Your task to perform on an android device: turn on improve location accuracy Image 0: 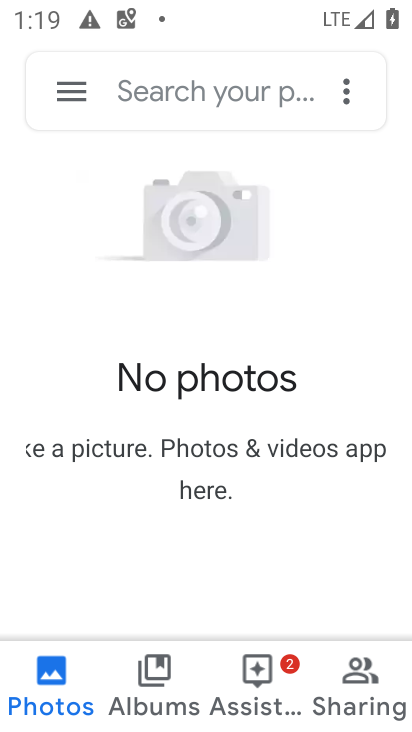
Step 0: press home button
Your task to perform on an android device: turn on improve location accuracy Image 1: 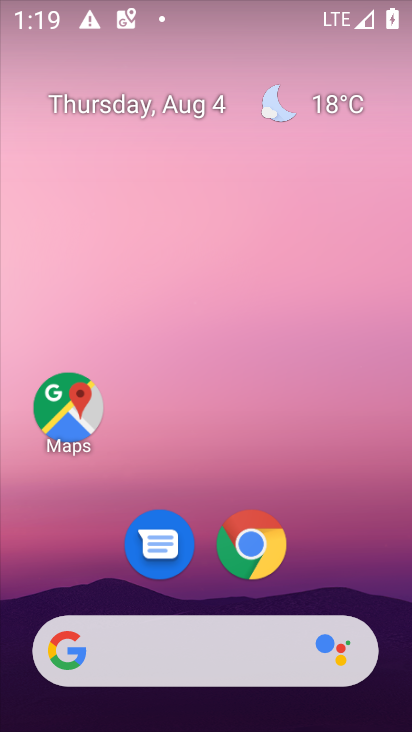
Step 1: drag from (398, 706) to (310, 136)
Your task to perform on an android device: turn on improve location accuracy Image 2: 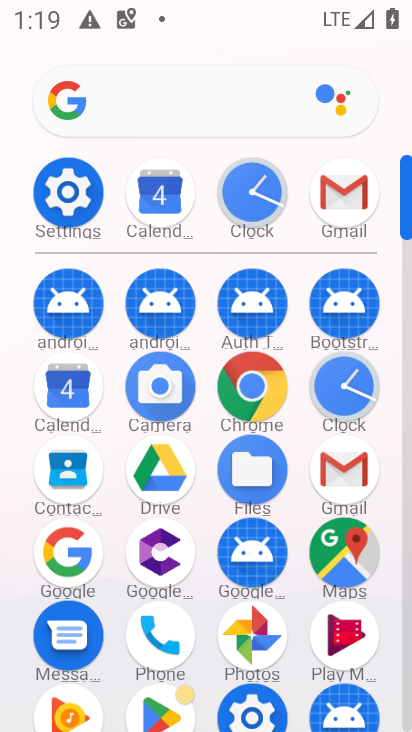
Step 2: click (57, 189)
Your task to perform on an android device: turn on improve location accuracy Image 3: 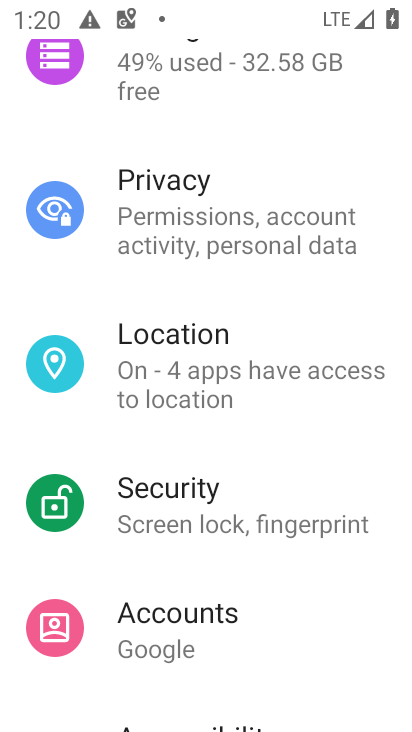
Step 3: drag from (289, 655) to (288, 279)
Your task to perform on an android device: turn on improve location accuracy Image 4: 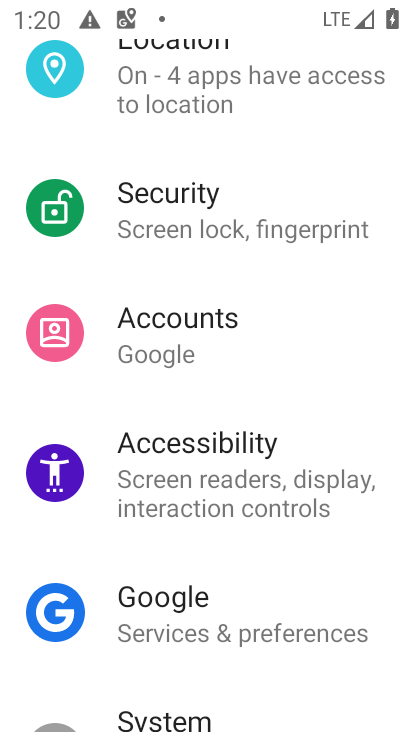
Step 4: drag from (253, 674) to (263, 417)
Your task to perform on an android device: turn on improve location accuracy Image 5: 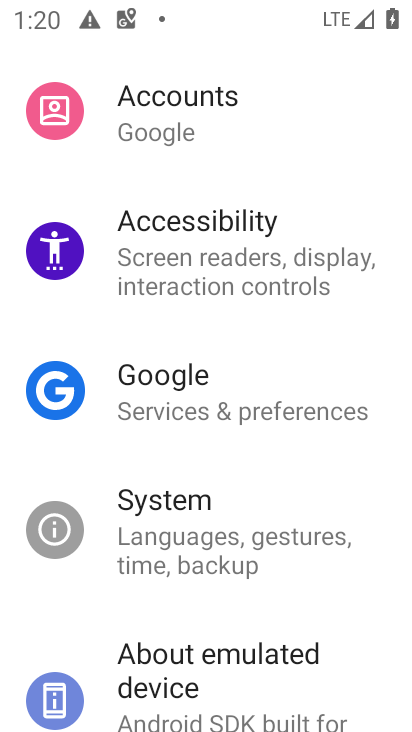
Step 5: drag from (306, 675) to (324, 347)
Your task to perform on an android device: turn on improve location accuracy Image 6: 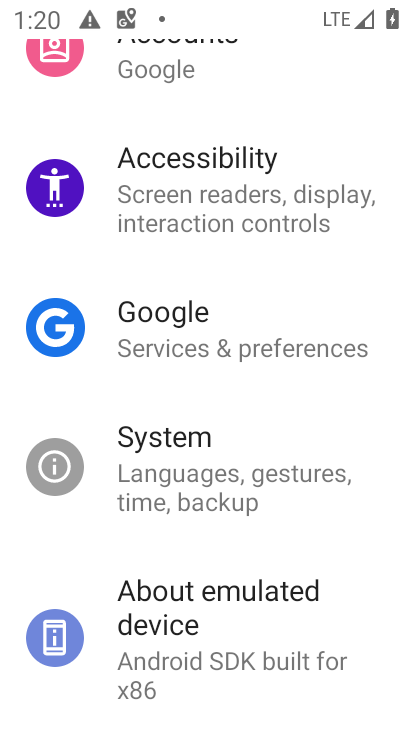
Step 6: drag from (266, 164) to (256, 611)
Your task to perform on an android device: turn on improve location accuracy Image 7: 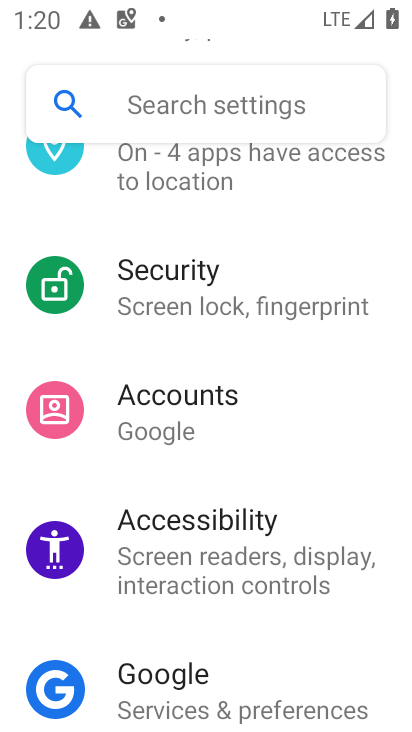
Step 7: drag from (249, 246) to (256, 567)
Your task to perform on an android device: turn on improve location accuracy Image 8: 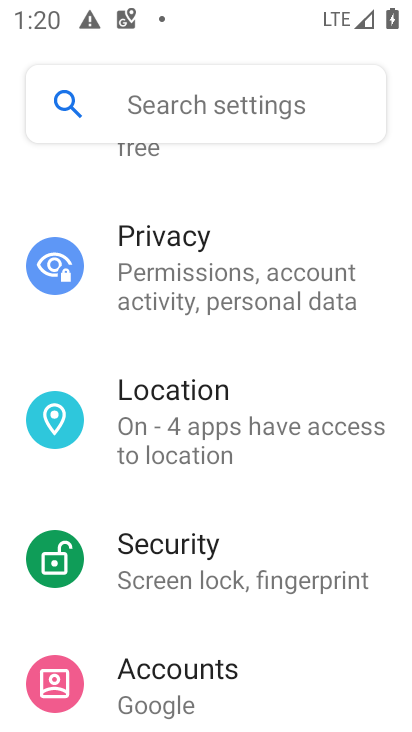
Step 8: click (147, 424)
Your task to perform on an android device: turn on improve location accuracy Image 9: 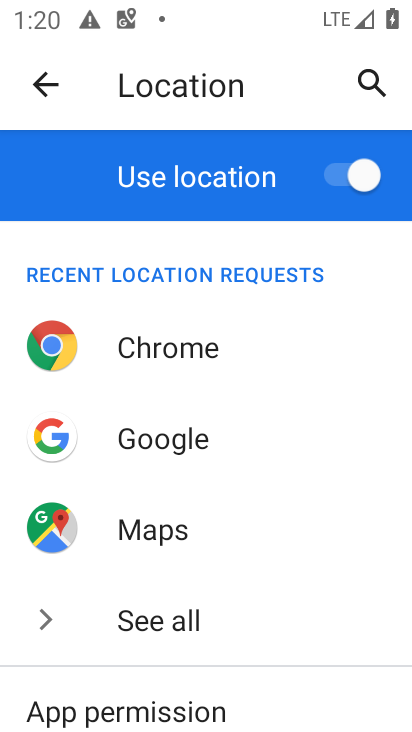
Step 9: drag from (300, 683) to (234, 203)
Your task to perform on an android device: turn on improve location accuracy Image 10: 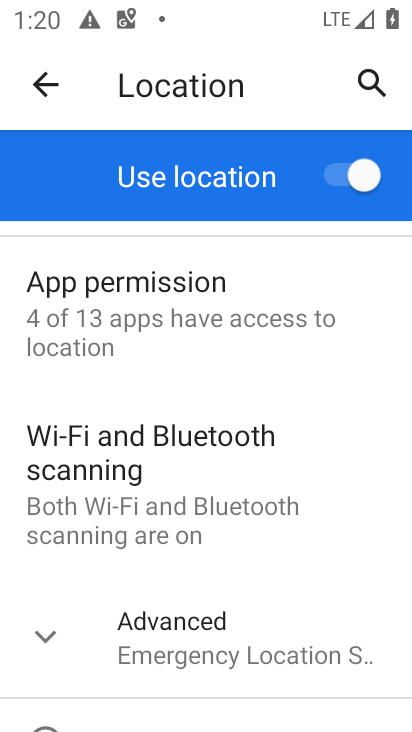
Step 10: click (34, 639)
Your task to perform on an android device: turn on improve location accuracy Image 11: 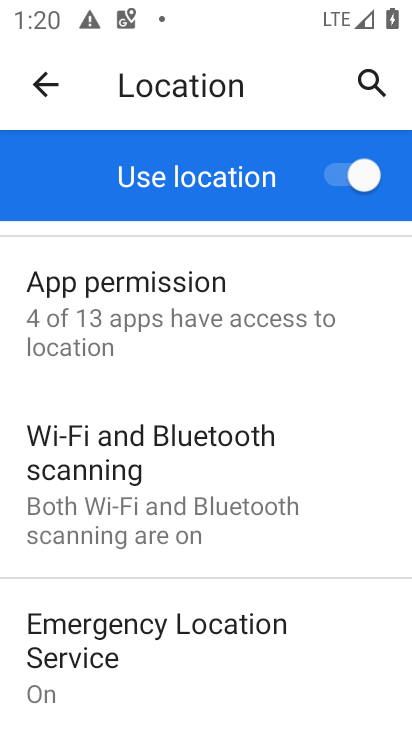
Step 11: drag from (332, 704) to (319, 286)
Your task to perform on an android device: turn on improve location accuracy Image 12: 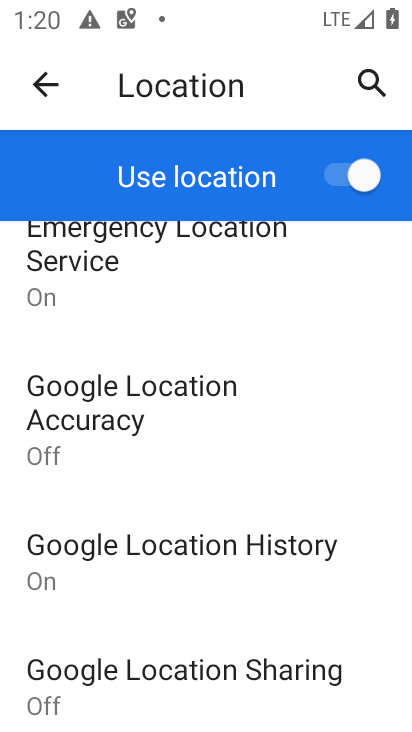
Step 12: click (117, 414)
Your task to perform on an android device: turn on improve location accuracy Image 13: 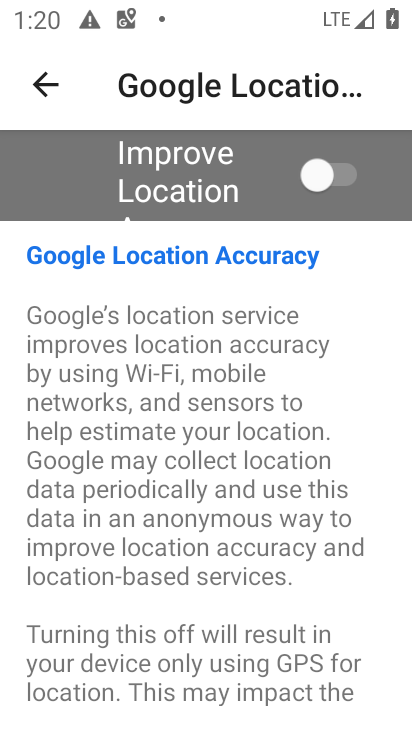
Step 13: click (349, 173)
Your task to perform on an android device: turn on improve location accuracy Image 14: 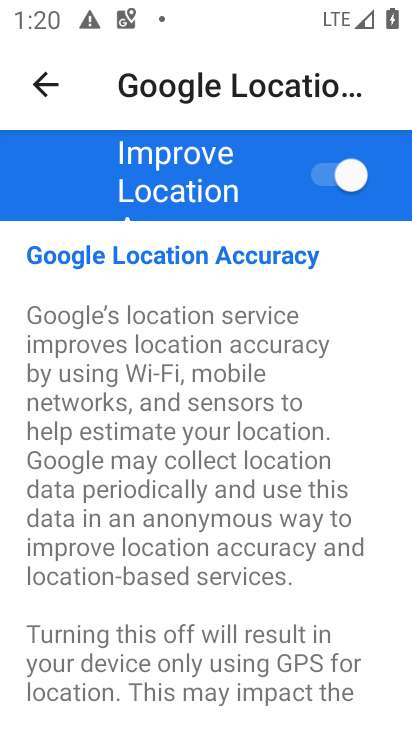
Step 14: task complete